Your task to perform on an android device: toggle data saver in the chrome app Image 0: 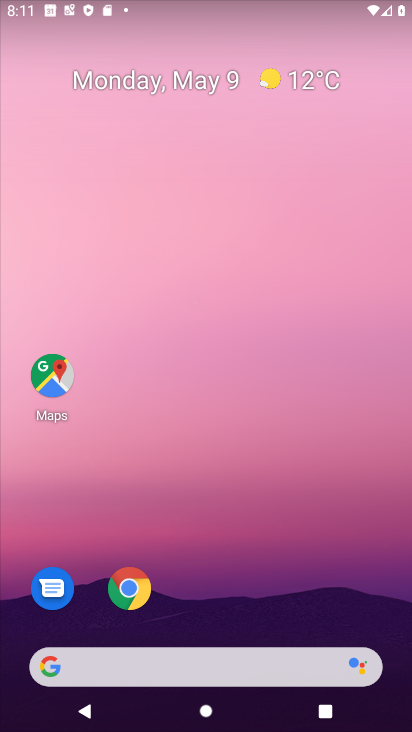
Step 0: drag from (177, 647) to (269, 96)
Your task to perform on an android device: toggle data saver in the chrome app Image 1: 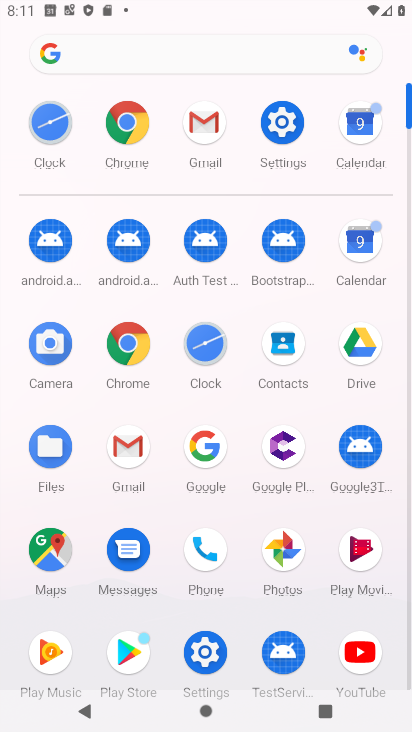
Step 1: click (129, 131)
Your task to perform on an android device: toggle data saver in the chrome app Image 2: 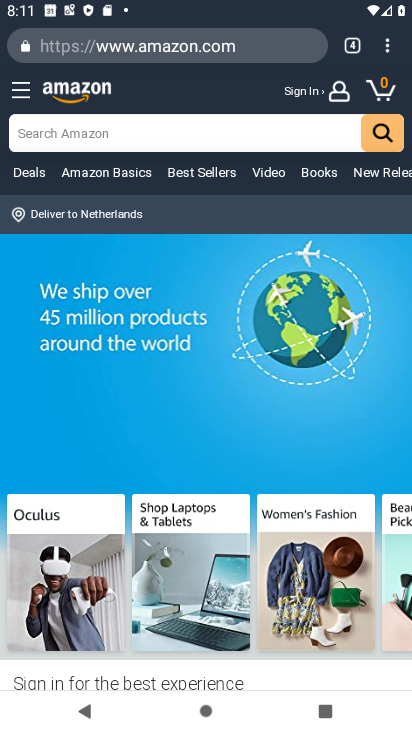
Step 2: drag from (387, 49) to (228, 555)
Your task to perform on an android device: toggle data saver in the chrome app Image 3: 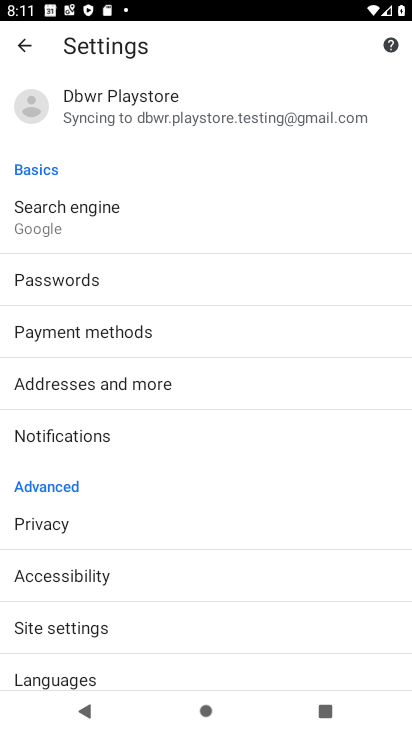
Step 3: drag from (110, 650) to (204, 393)
Your task to perform on an android device: toggle data saver in the chrome app Image 4: 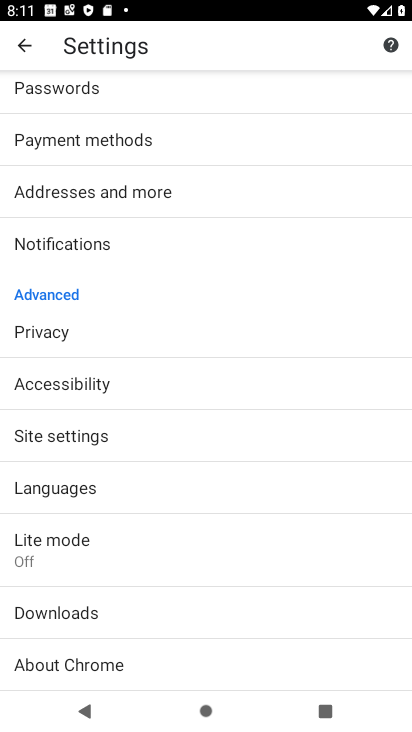
Step 4: click (39, 561)
Your task to perform on an android device: toggle data saver in the chrome app Image 5: 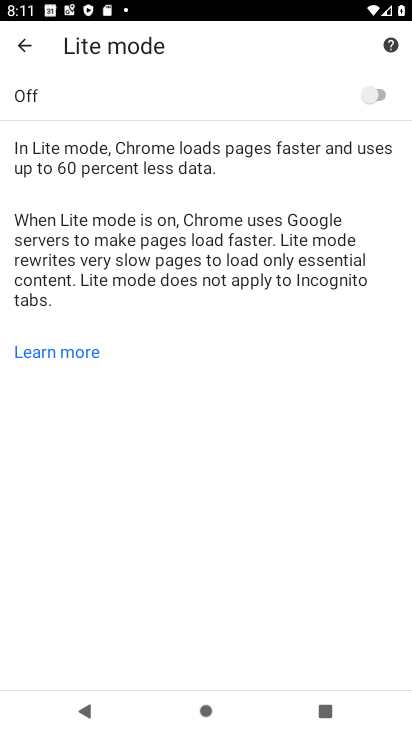
Step 5: click (381, 91)
Your task to perform on an android device: toggle data saver in the chrome app Image 6: 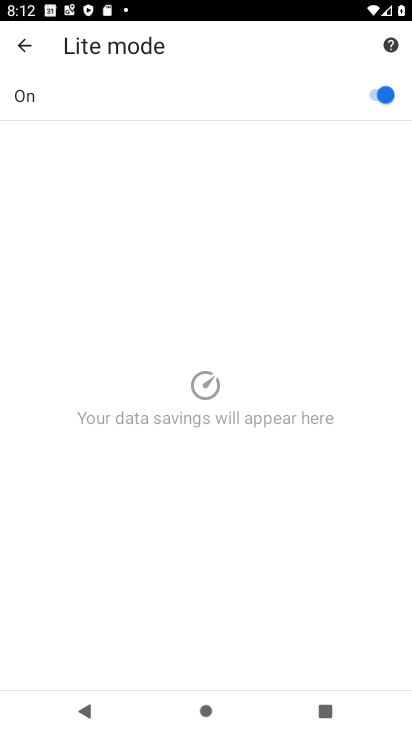
Step 6: task complete